Your task to perform on an android device: turn on translation in the chrome app Image 0: 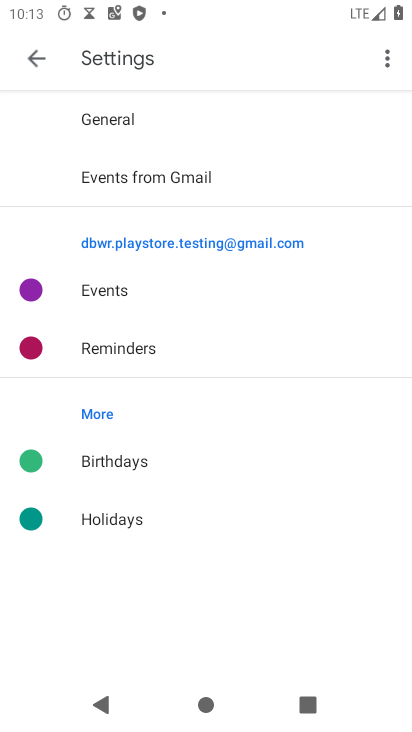
Step 0: press home button
Your task to perform on an android device: turn on translation in the chrome app Image 1: 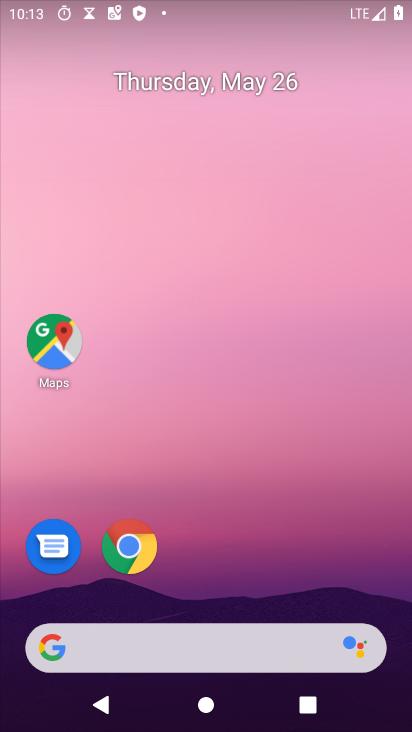
Step 1: drag from (350, 546) to (331, 154)
Your task to perform on an android device: turn on translation in the chrome app Image 2: 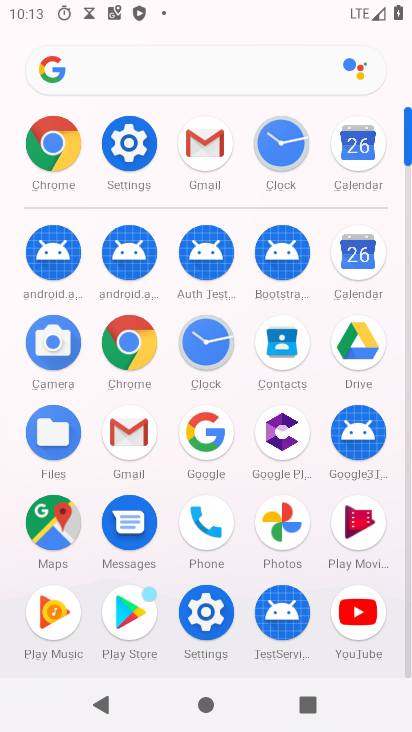
Step 2: click (140, 361)
Your task to perform on an android device: turn on translation in the chrome app Image 3: 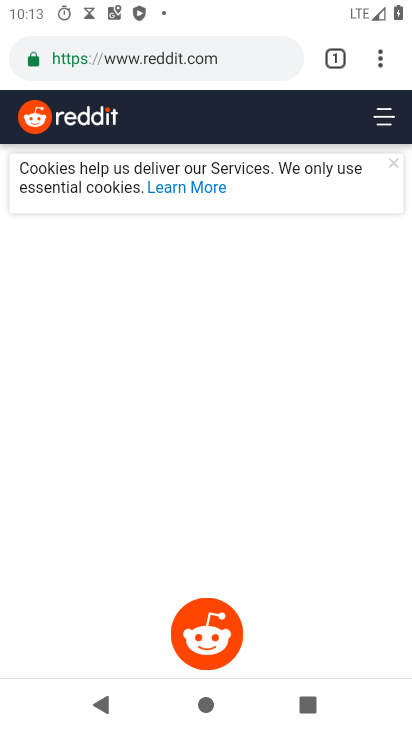
Step 3: drag from (381, 63) to (185, 573)
Your task to perform on an android device: turn on translation in the chrome app Image 4: 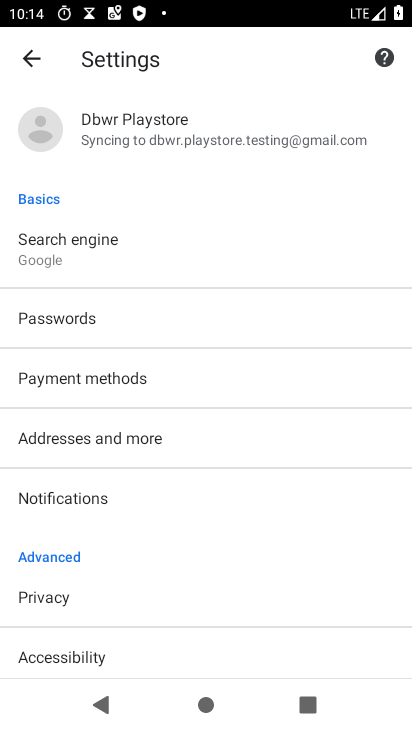
Step 4: drag from (214, 601) to (235, 296)
Your task to perform on an android device: turn on translation in the chrome app Image 5: 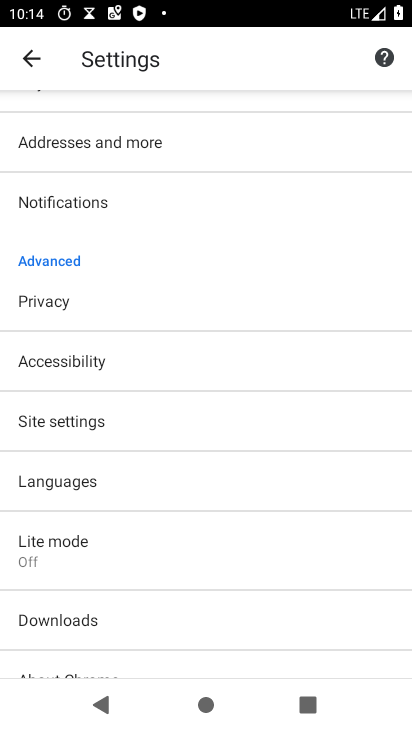
Step 5: drag from (256, 589) to (315, 306)
Your task to perform on an android device: turn on translation in the chrome app Image 6: 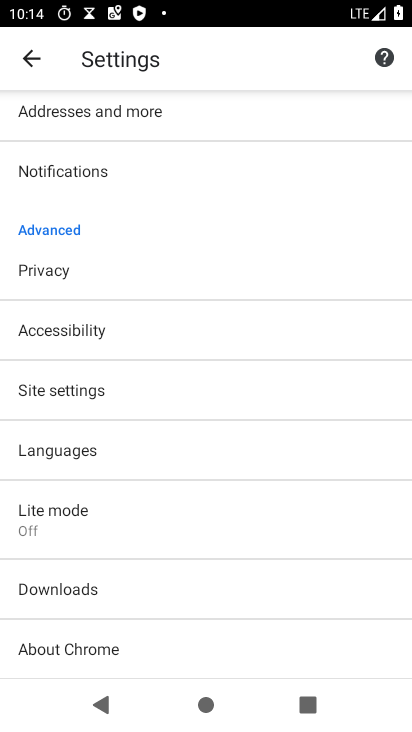
Step 6: click (187, 458)
Your task to perform on an android device: turn on translation in the chrome app Image 7: 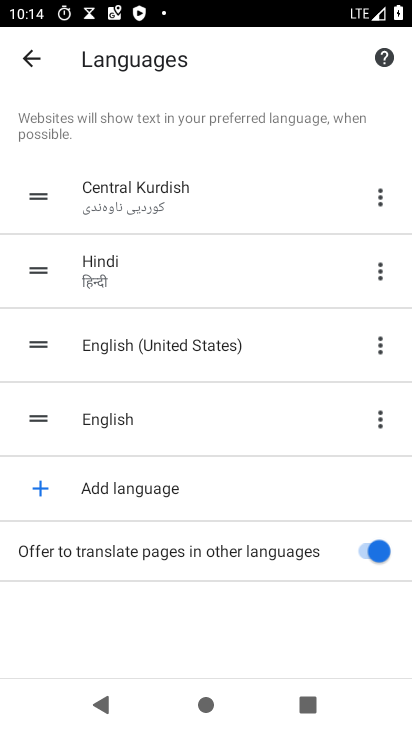
Step 7: task complete